Your task to perform on an android device: change timer sound Image 0: 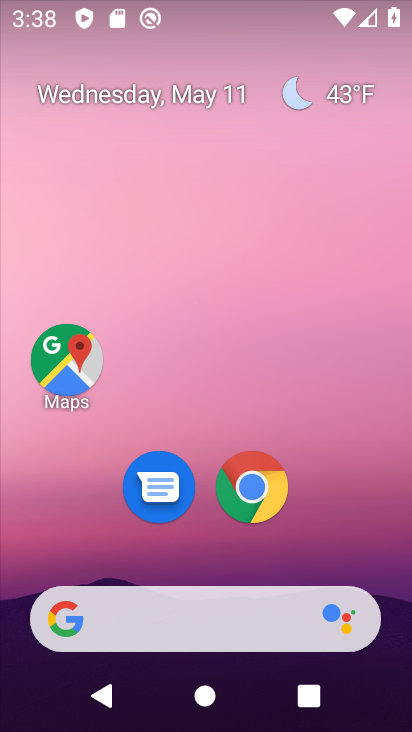
Step 0: drag from (310, 519) to (313, 149)
Your task to perform on an android device: change timer sound Image 1: 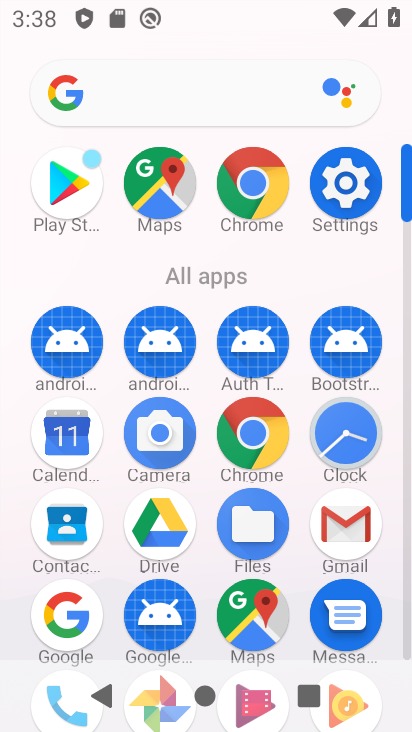
Step 1: click (342, 195)
Your task to perform on an android device: change timer sound Image 2: 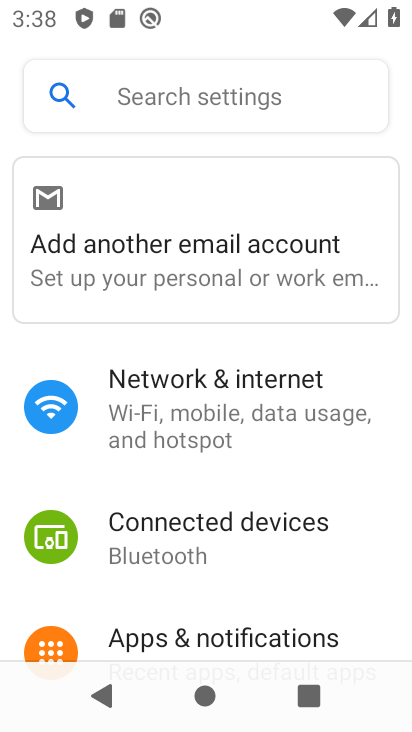
Step 2: click (245, 229)
Your task to perform on an android device: change timer sound Image 3: 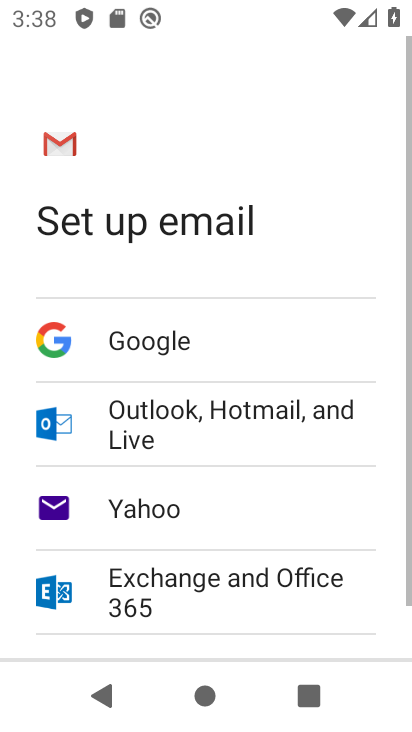
Step 3: press back button
Your task to perform on an android device: change timer sound Image 4: 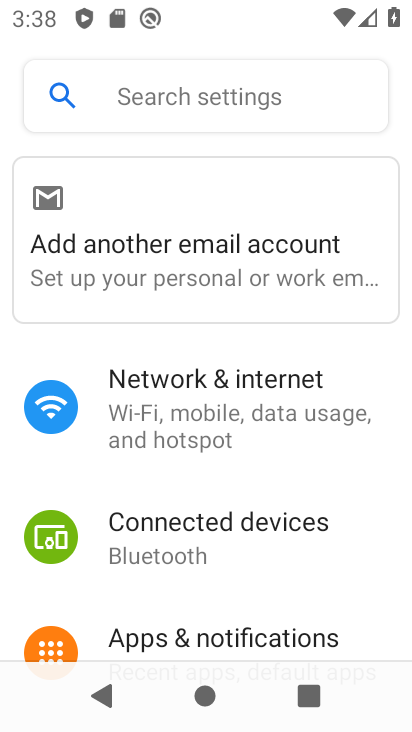
Step 4: drag from (255, 503) to (305, 226)
Your task to perform on an android device: change timer sound Image 5: 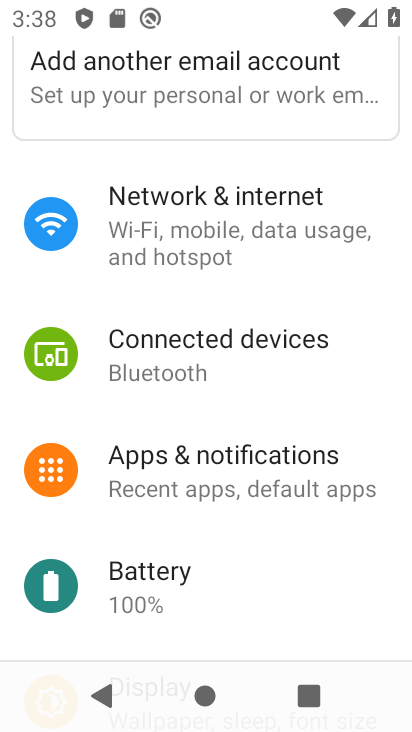
Step 5: drag from (232, 610) to (294, 275)
Your task to perform on an android device: change timer sound Image 6: 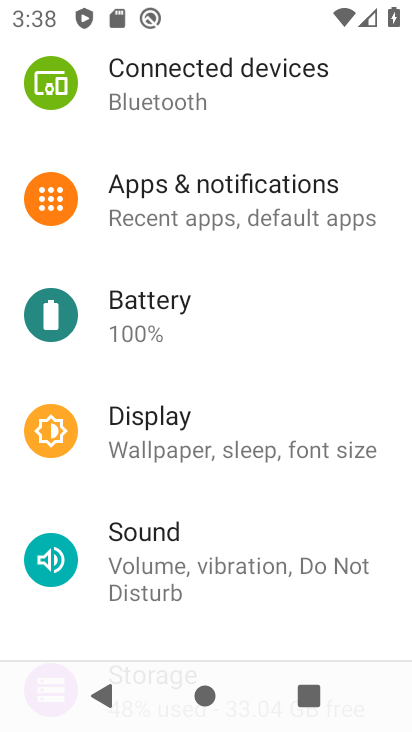
Step 6: press back button
Your task to perform on an android device: change timer sound Image 7: 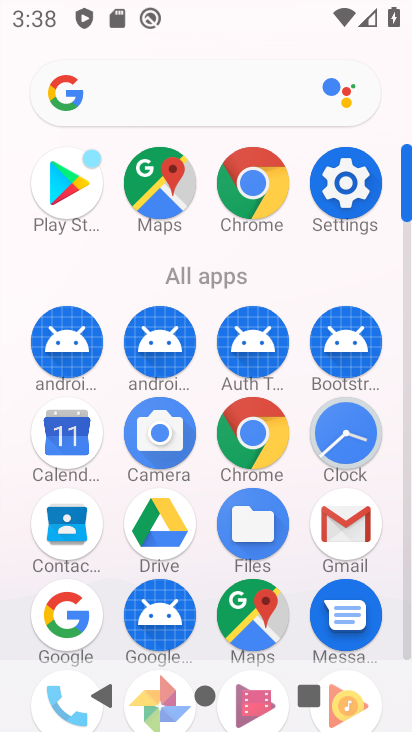
Step 7: click (341, 446)
Your task to perform on an android device: change timer sound Image 8: 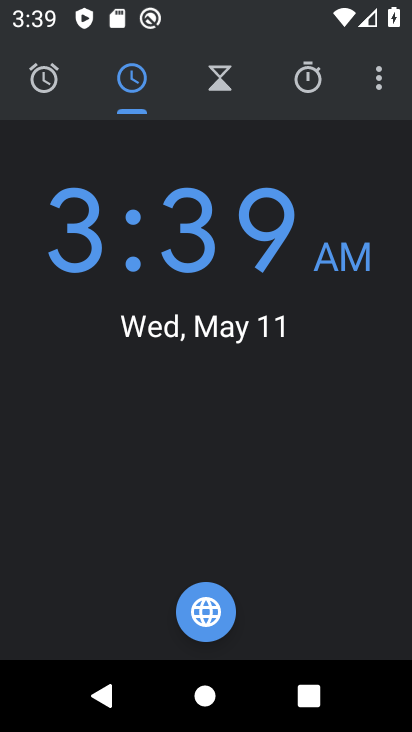
Step 8: click (380, 80)
Your task to perform on an android device: change timer sound Image 9: 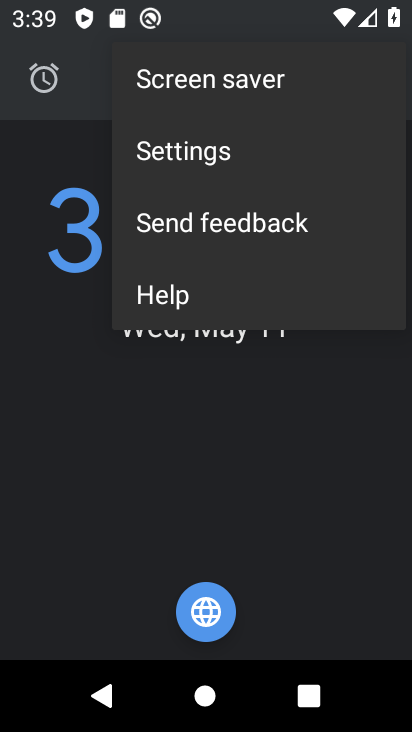
Step 9: click (244, 142)
Your task to perform on an android device: change timer sound Image 10: 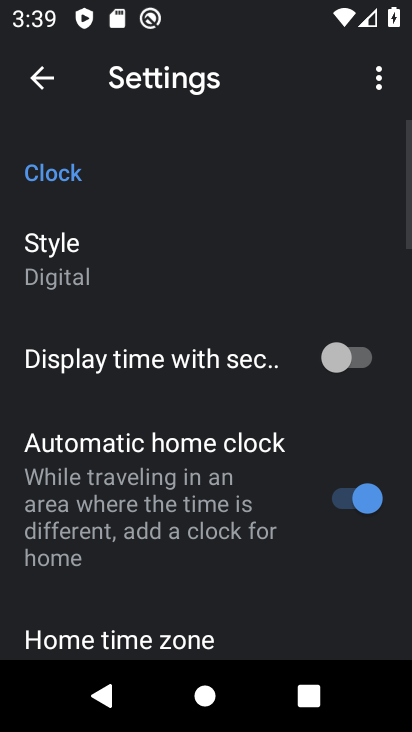
Step 10: drag from (191, 574) to (266, 220)
Your task to perform on an android device: change timer sound Image 11: 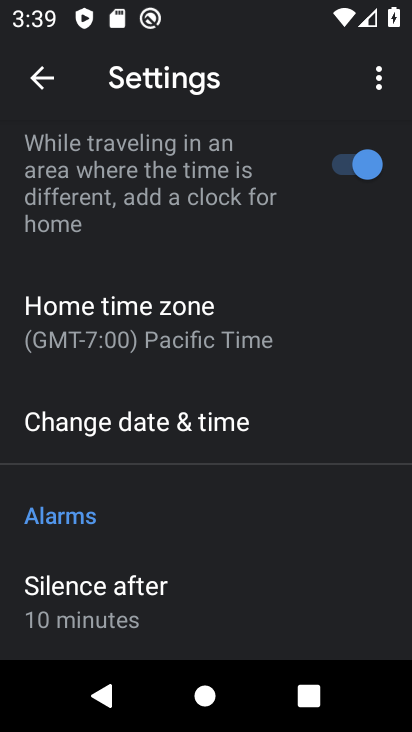
Step 11: drag from (150, 542) to (174, 230)
Your task to perform on an android device: change timer sound Image 12: 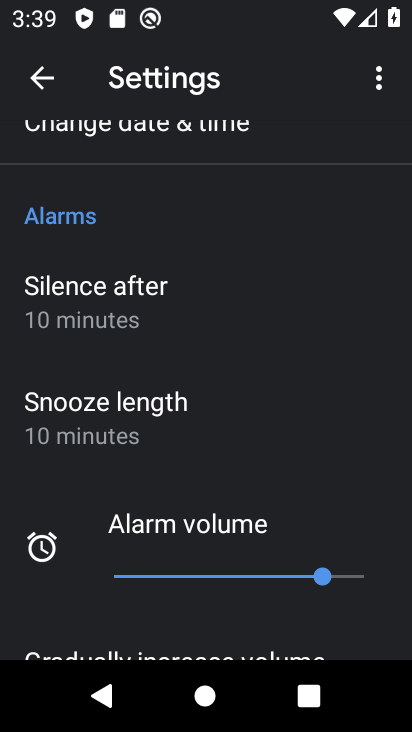
Step 12: drag from (151, 500) to (213, 252)
Your task to perform on an android device: change timer sound Image 13: 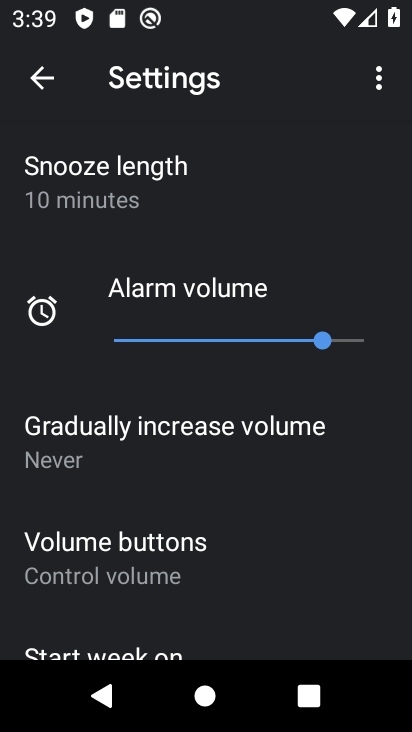
Step 13: click (272, 249)
Your task to perform on an android device: change timer sound Image 14: 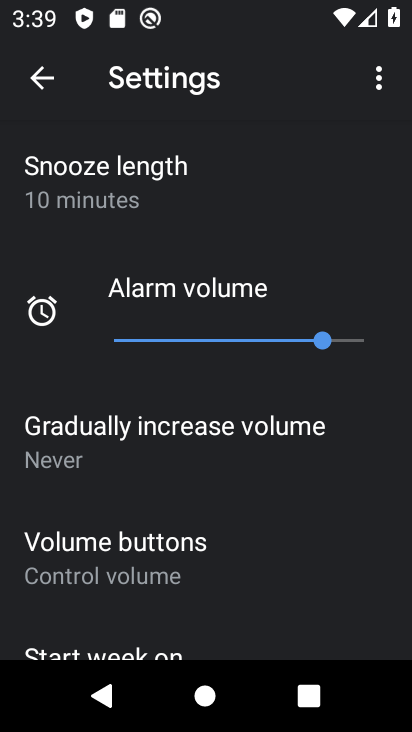
Step 14: drag from (263, 512) to (158, 142)
Your task to perform on an android device: change timer sound Image 15: 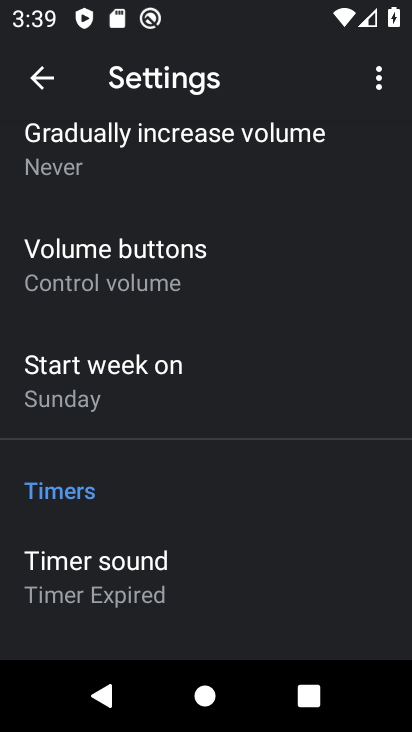
Step 15: drag from (124, 544) to (187, 247)
Your task to perform on an android device: change timer sound Image 16: 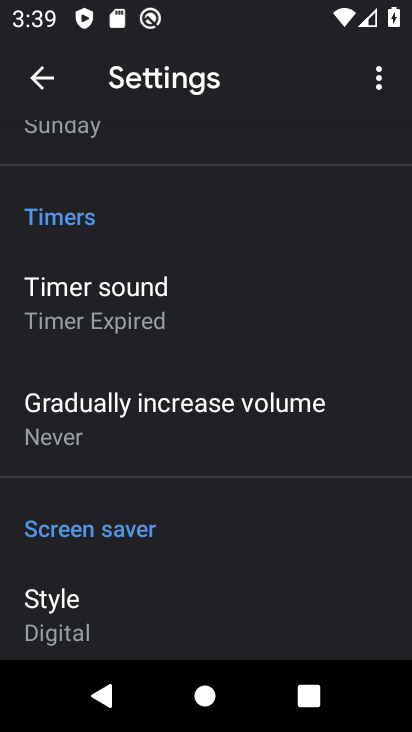
Step 16: click (109, 293)
Your task to perform on an android device: change timer sound Image 17: 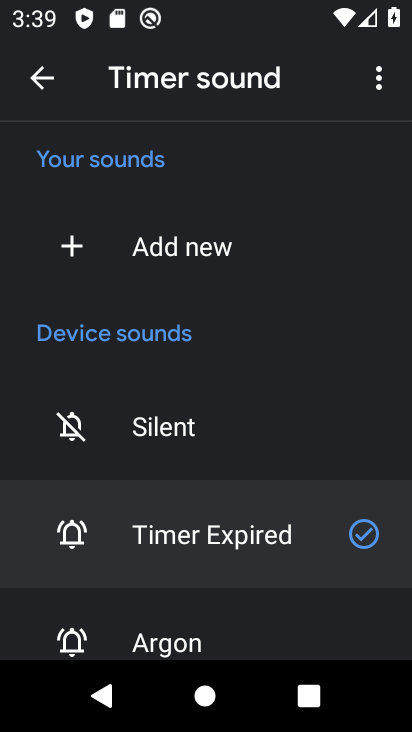
Step 17: drag from (213, 494) to (268, 240)
Your task to perform on an android device: change timer sound Image 18: 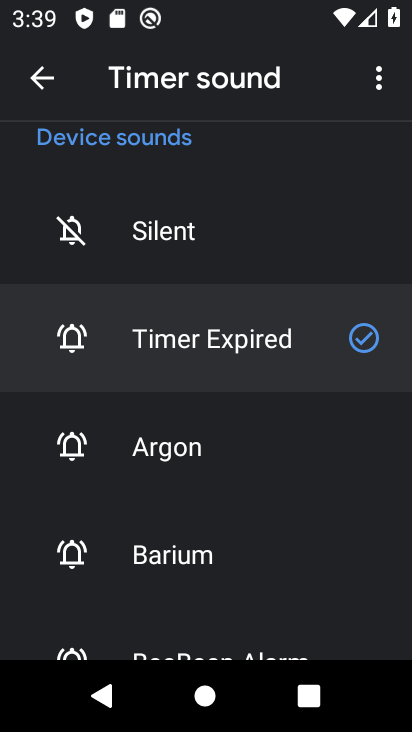
Step 18: click (168, 436)
Your task to perform on an android device: change timer sound Image 19: 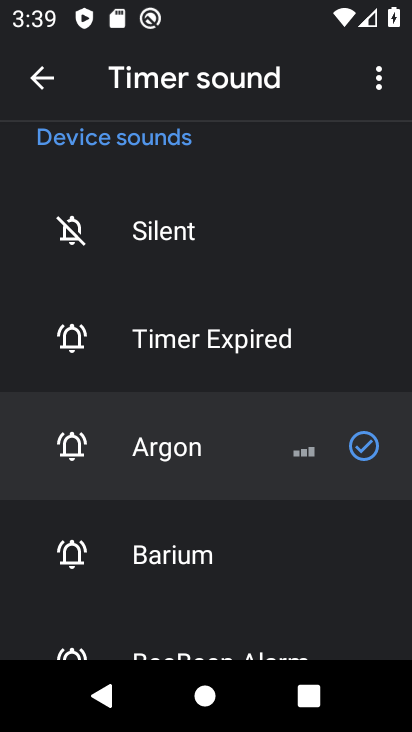
Step 19: task complete